Your task to perform on an android device: change the clock display to digital Image 0: 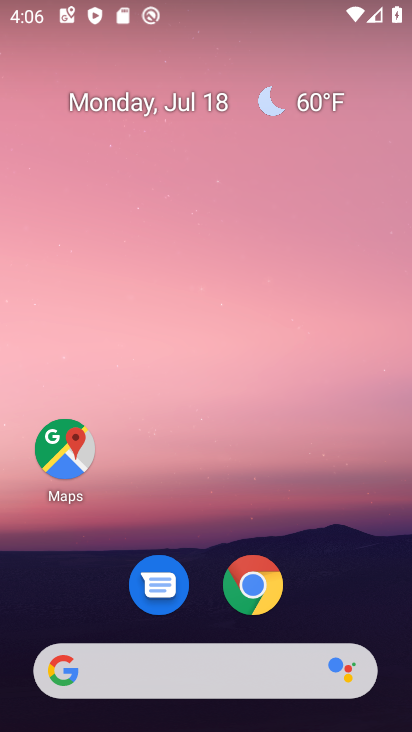
Step 0: drag from (288, 587) to (296, 53)
Your task to perform on an android device: change the clock display to digital Image 1: 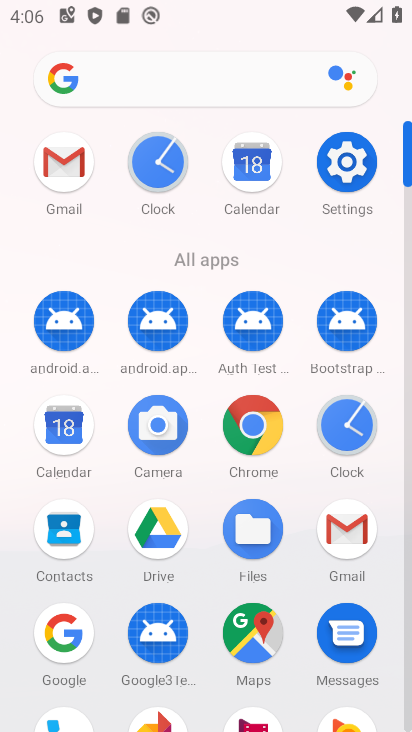
Step 1: click (171, 157)
Your task to perform on an android device: change the clock display to digital Image 2: 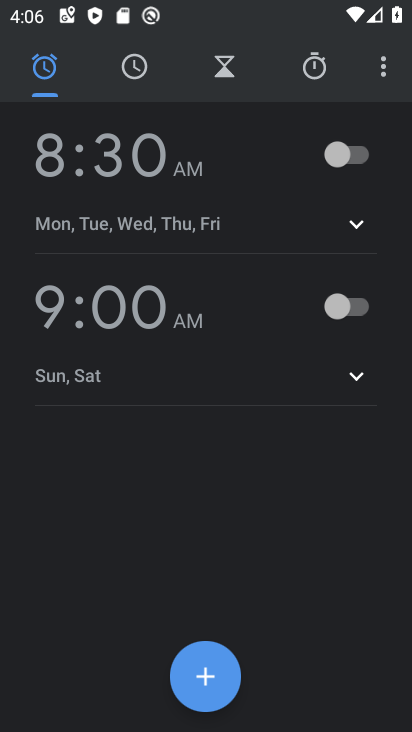
Step 2: click (132, 73)
Your task to perform on an android device: change the clock display to digital Image 3: 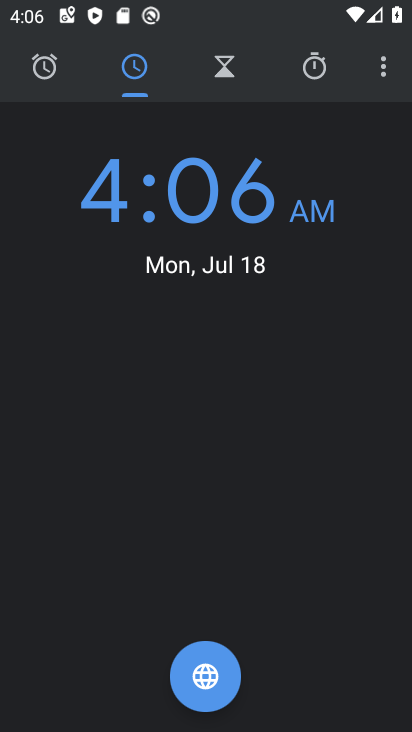
Step 3: task complete